Your task to perform on an android device: empty trash in google photos Image 0: 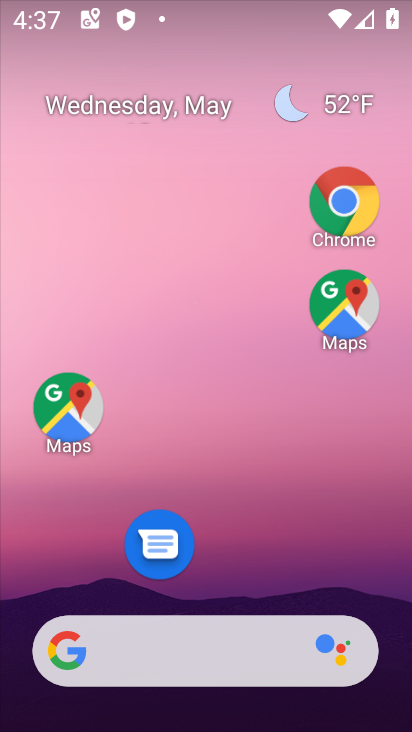
Step 0: drag from (197, 586) to (154, 45)
Your task to perform on an android device: empty trash in google photos Image 1: 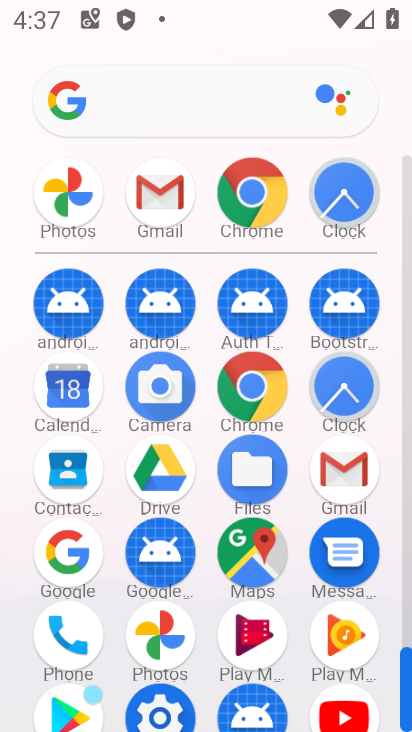
Step 1: click (151, 627)
Your task to perform on an android device: empty trash in google photos Image 2: 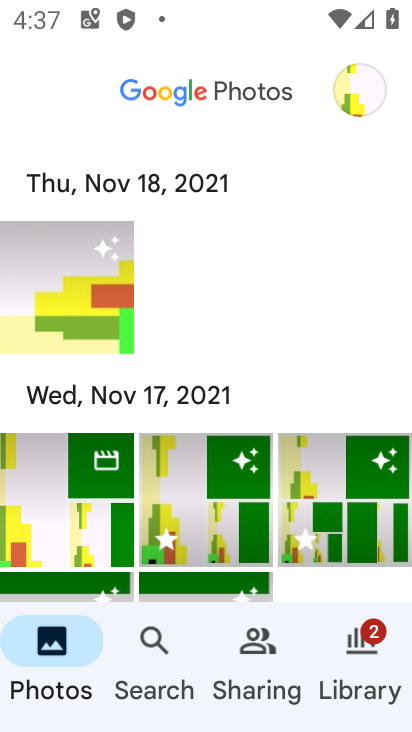
Step 2: click (355, 680)
Your task to perform on an android device: empty trash in google photos Image 3: 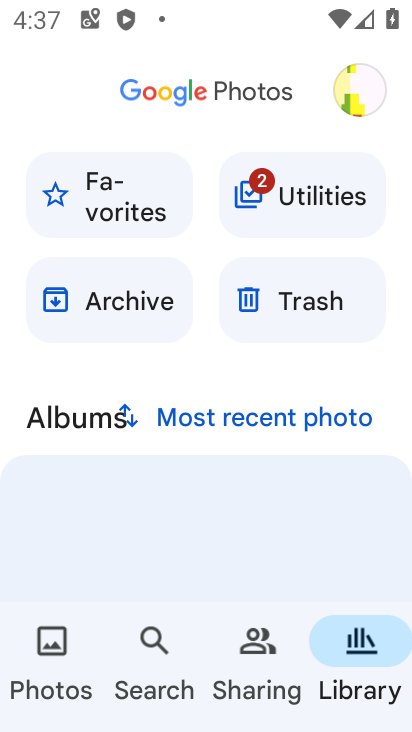
Step 3: click (341, 305)
Your task to perform on an android device: empty trash in google photos Image 4: 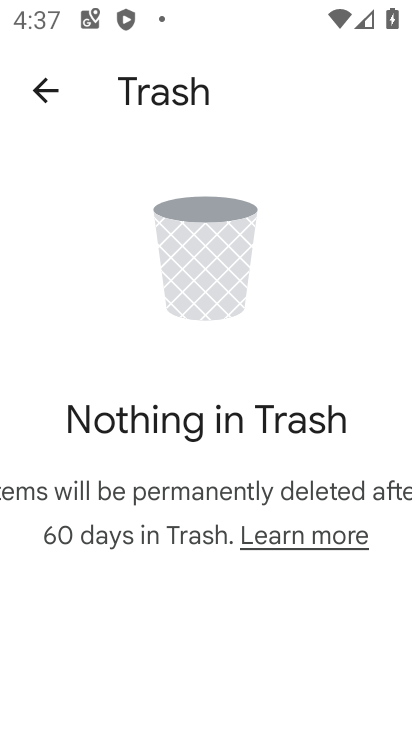
Step 4: task complete